Your task to perform on an android device: turn pop-ups off in chrome Image 0: 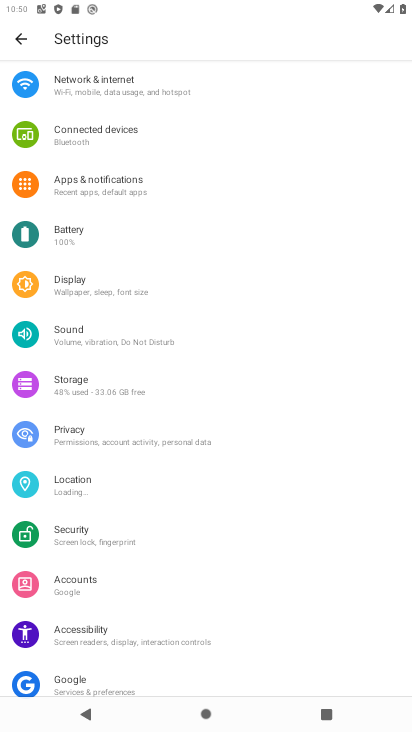
Step 0: press back button
Your task to perform on an android device: turn pop-ups off in chrome Image 1: 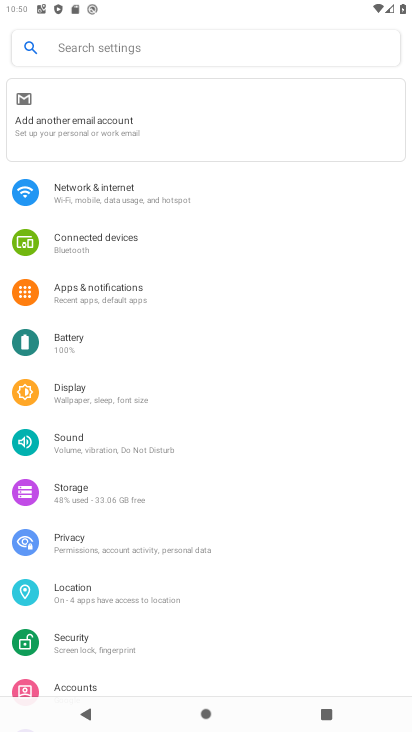
Step 1: press home button
Your task to perform on an android device: turn pop-ups off in chrome Image 2: 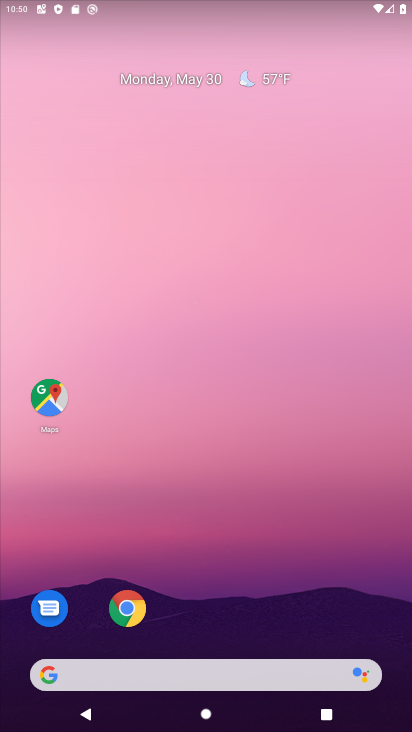
Step 2: drag from (295, 569) to (239, 35)
Your task to perform on an android device: turn pop-ups off in chrome Image 3: 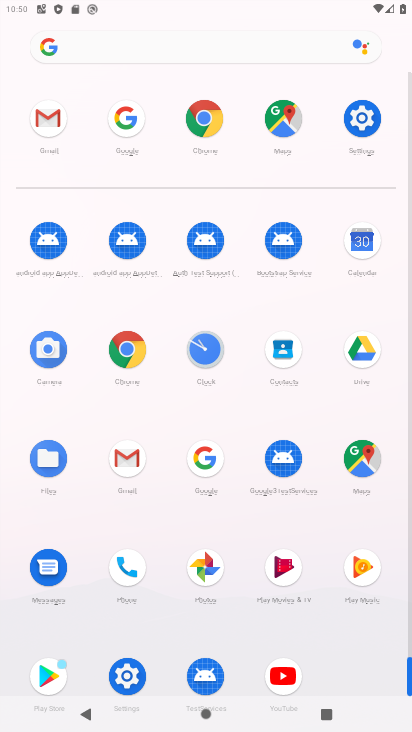
Step 3: click (126, 347)
Your task to perform on an android device: turn pop-ups off in chrome Image 4: 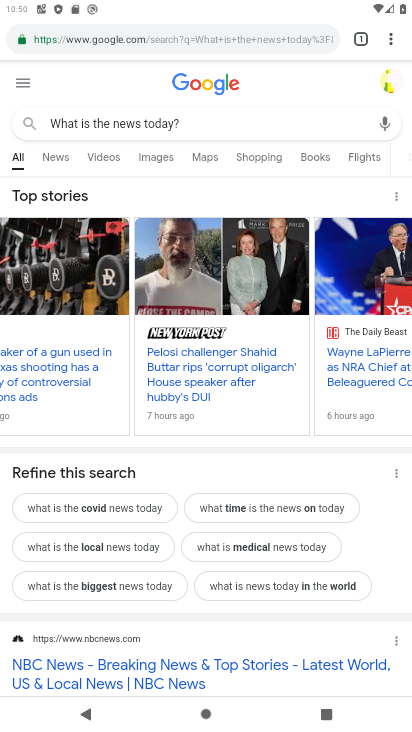
Step 4: drag from (388, 34) to (238, 472)
Your task to perform on an android device: turn pop-ups off in chrome Image 5: 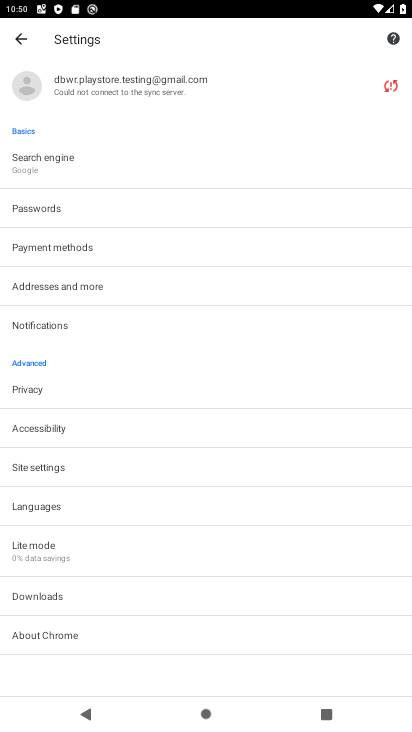
Step 5: click (51, 468)
Your task to perform on an android device: turn pop-ups off in chrome Image 6: 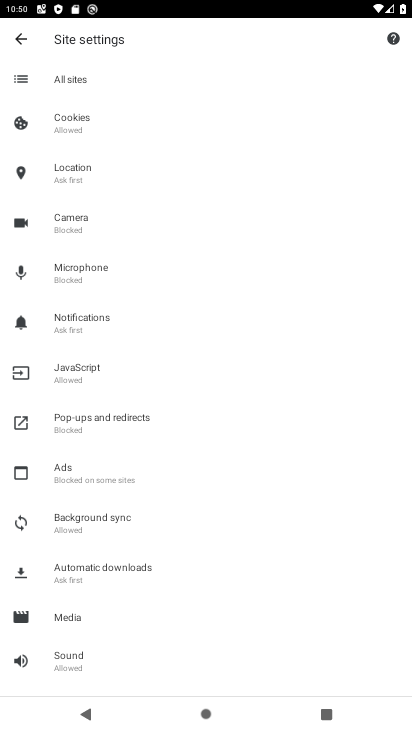
Step 6: click (92, 414)
Your task to perform on an android device: turn pop-ups off in chrome Image 7: 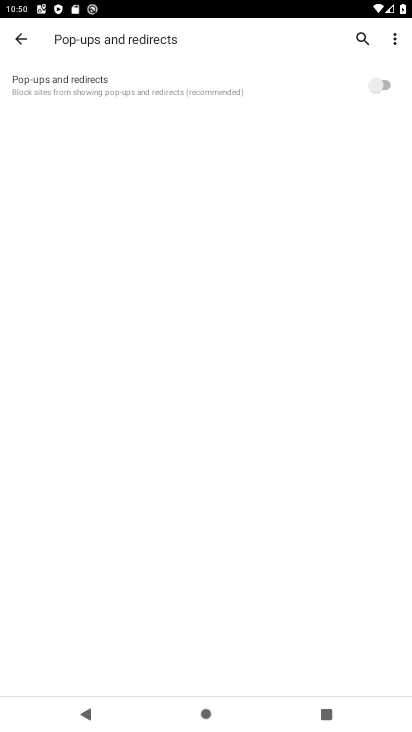
Step 7: task complete